Your task to perform on an android device: uninstall "Clock" Image 0: 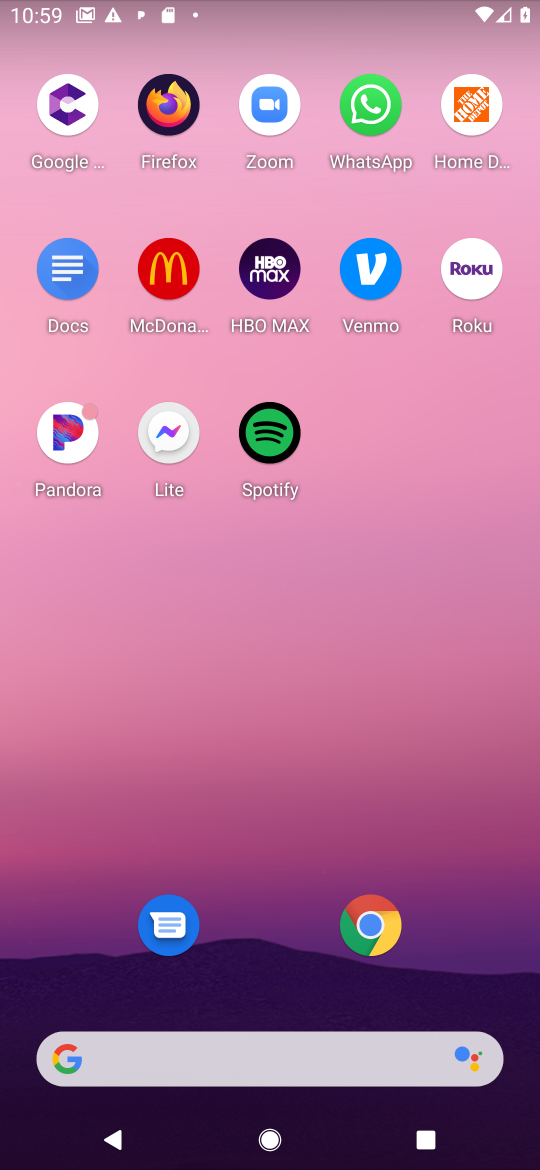
Step 0: drag from (256, 867) to (325, 4)
Your task to perform on an android device: uninstall "Clock" Image 1: 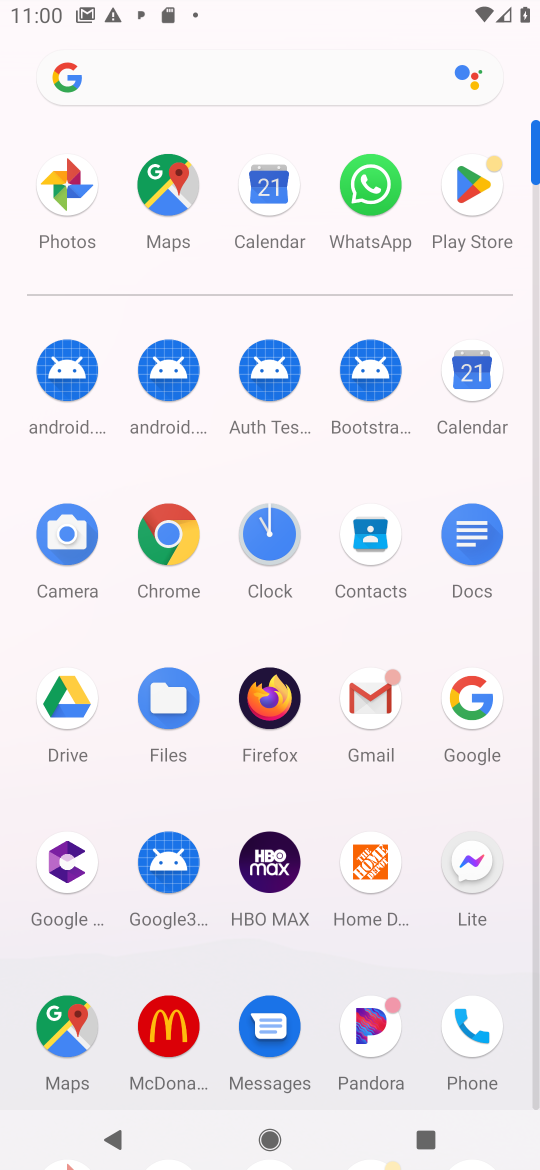
Step 1: click (454, 128)
Your task to perform on an android device: uninstall "Clock" Image 2: 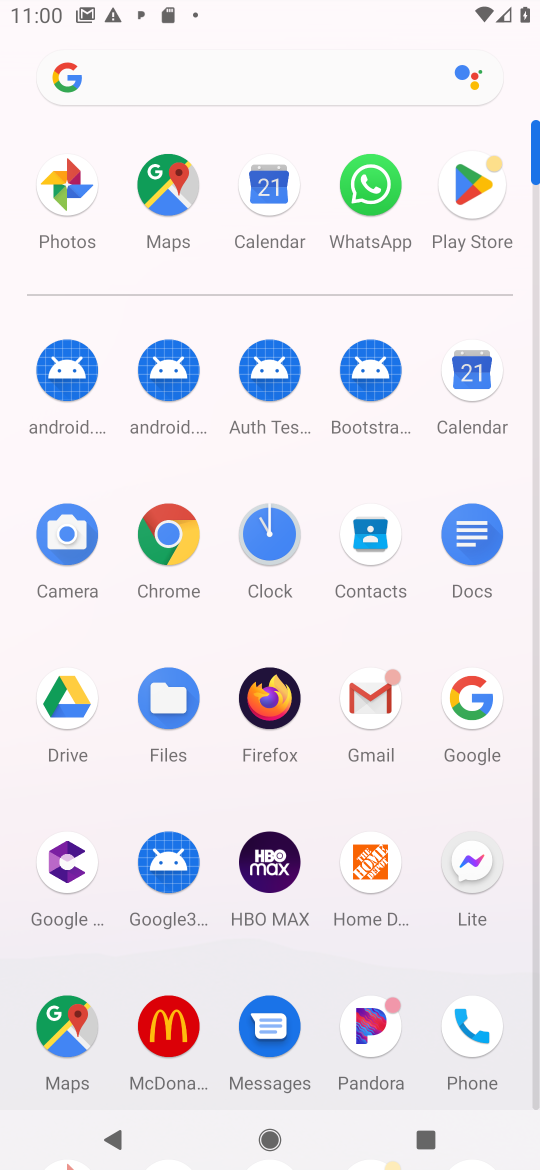
Step 2: click (468, 206)
Your task to perform on an android device: uninstall "Clock" Image 3: 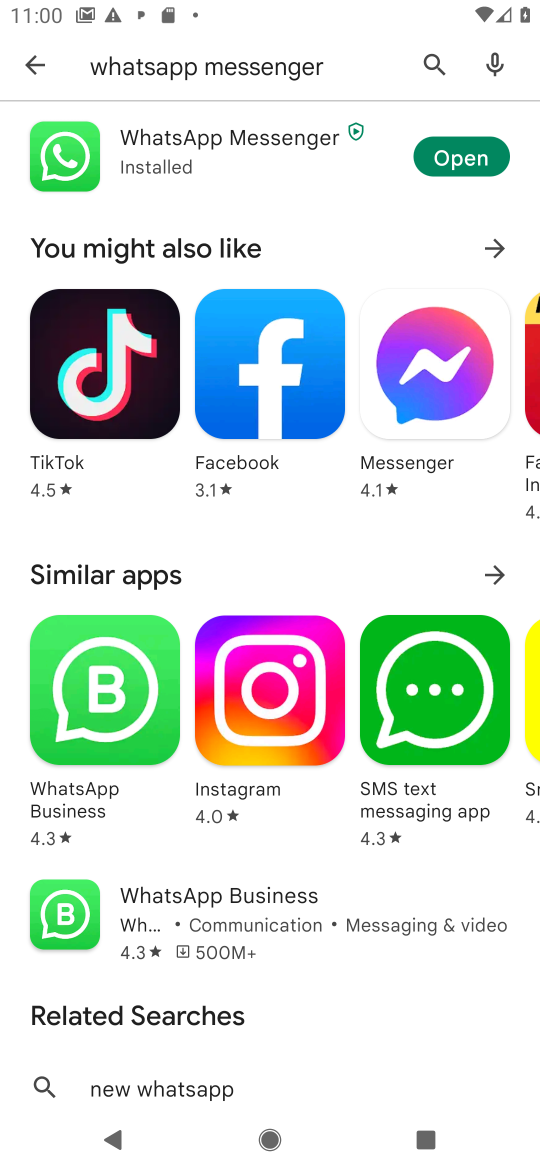
Step 3: click (454, 50)
Your task to perform on an android device: uninstall "Clock" Image 4: 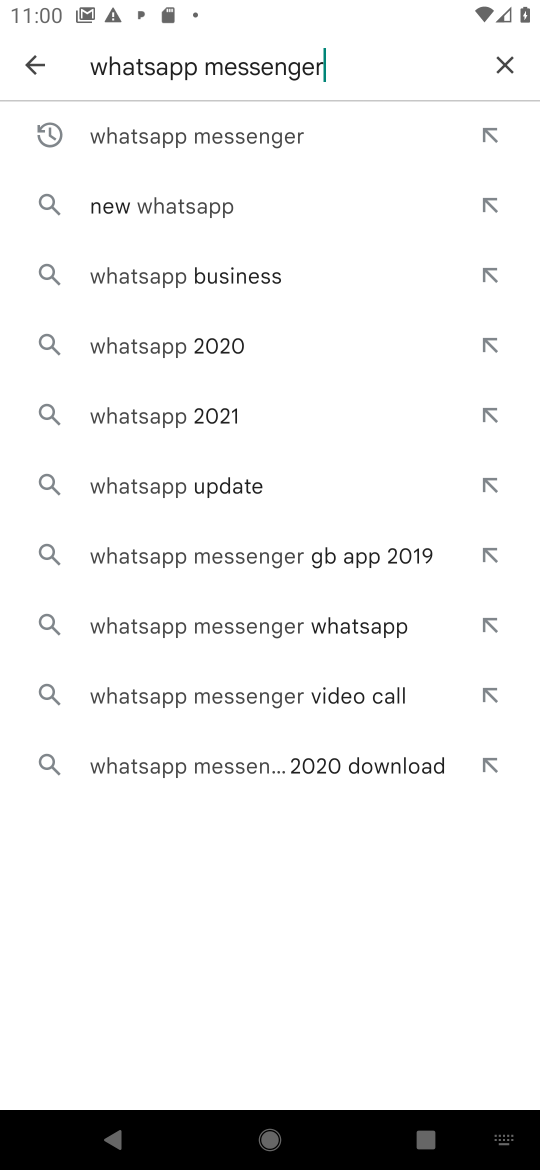
Step 4: click (498, 59)
Your task to perform on an android device: uninstall "Clock" Image 5: 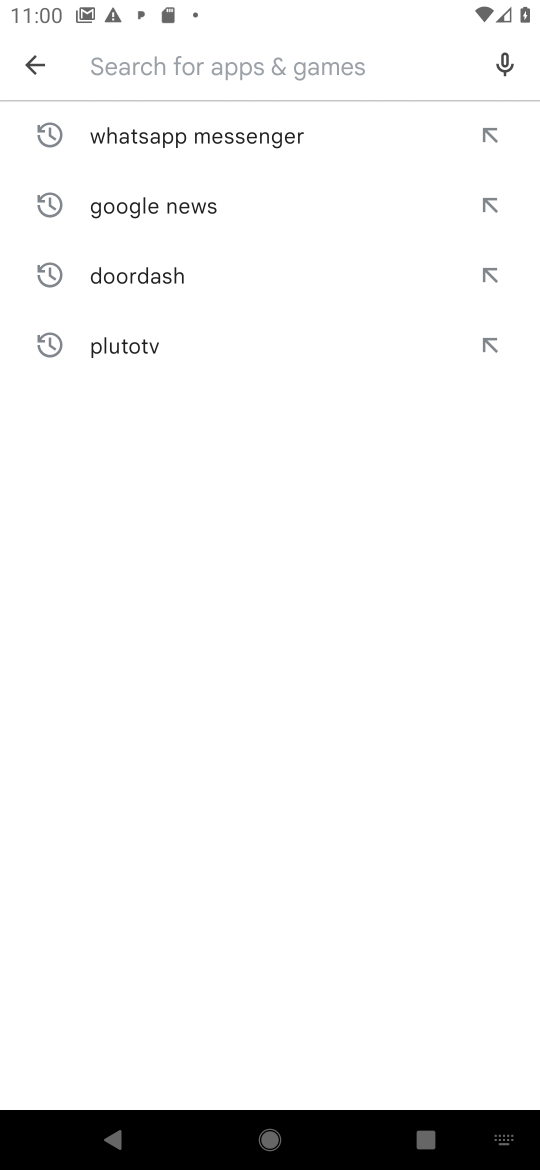
Step 5: type "clock"
Your task to perform on an android device: uninstall "Clock" Image 6: 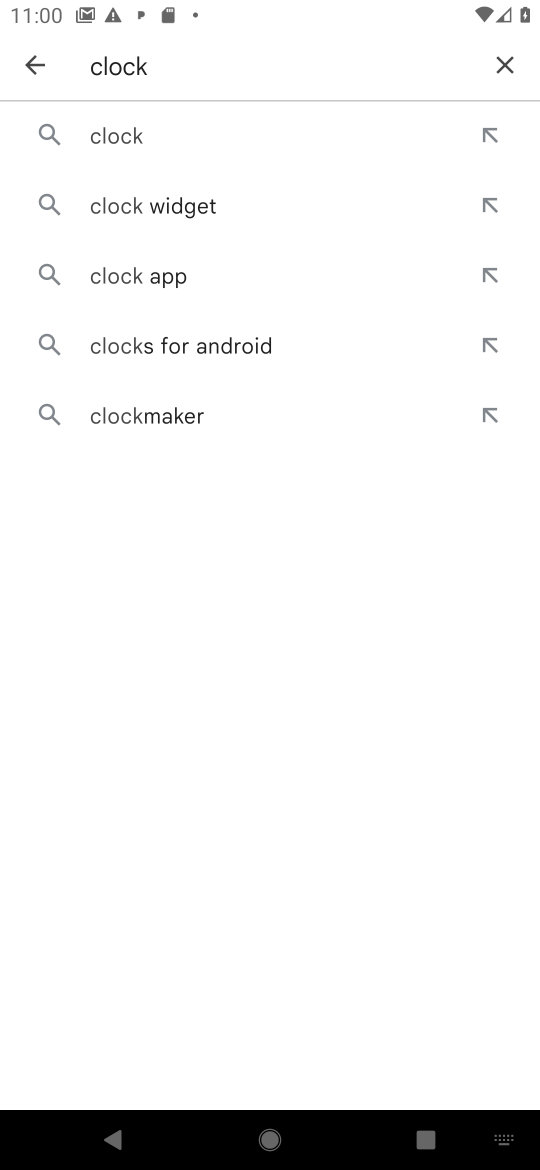
Step 6: click (137, 128)
Your task to perform on an android device: uninstall "Clock" Image 7: 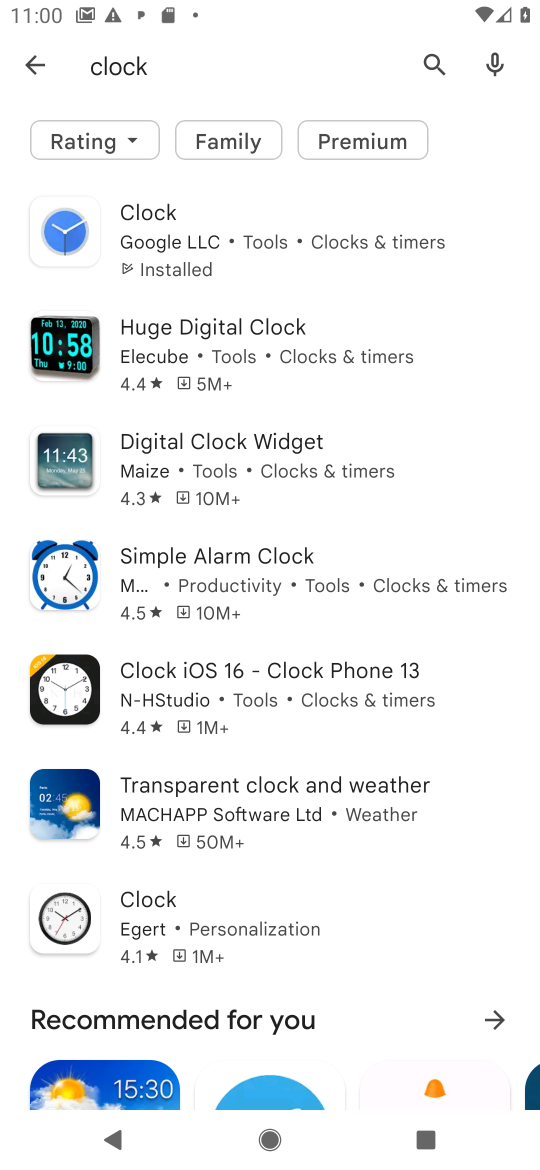
Step 7: click (153, 228)
Your task to perform on an android device: uninstall "Clock" Image 8: 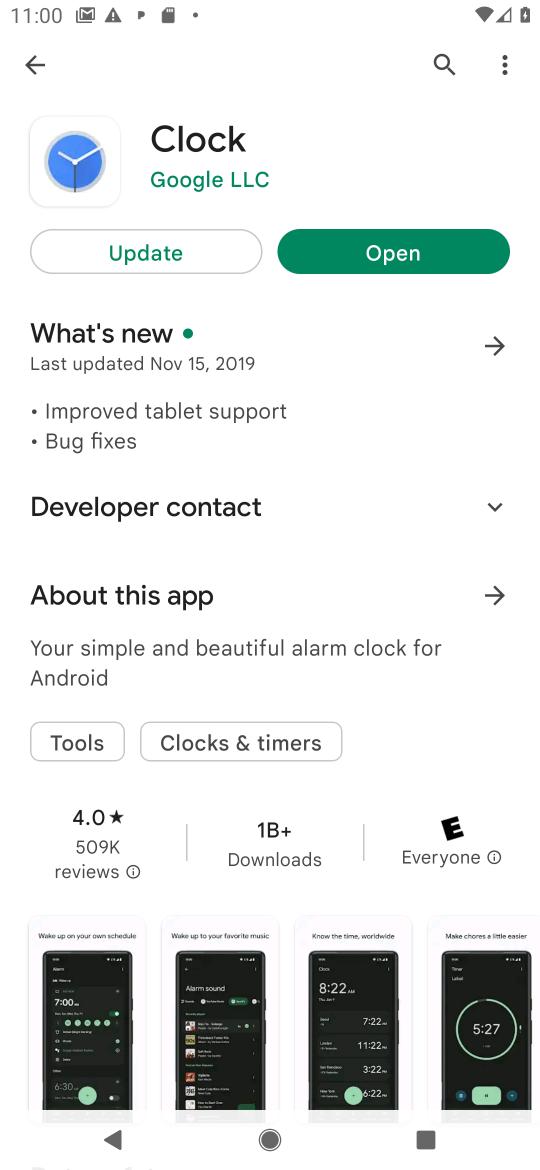
Step 8: task complete